Your task to perform on an android device: Empty the shopping cart on costco. Add sony triple a to the cart on costco, then select checkout. Image 0: 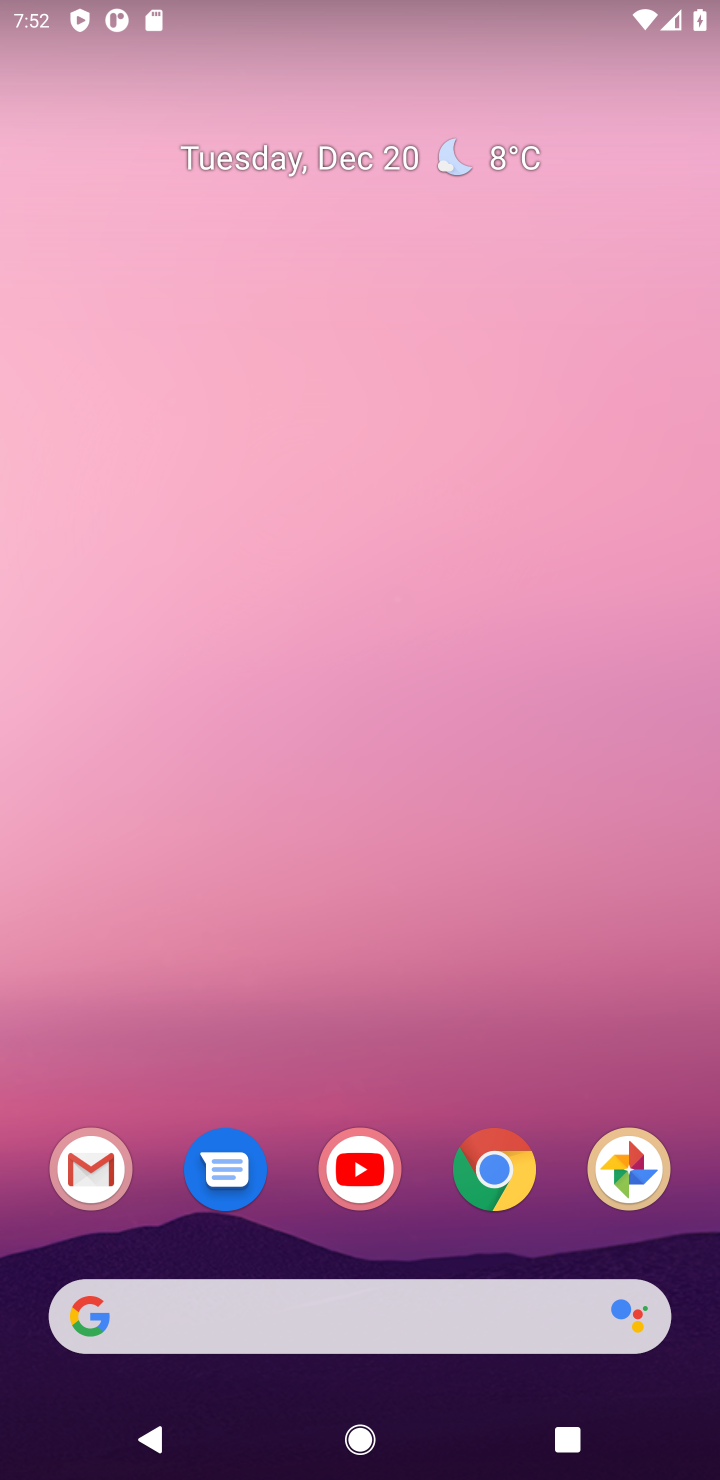
Step 0: click (480, 1175)
Your task to perform on an android device: Empty the shopping cart on costco. Add sony triple a to the cart on costco, then select checkout. Image 1: 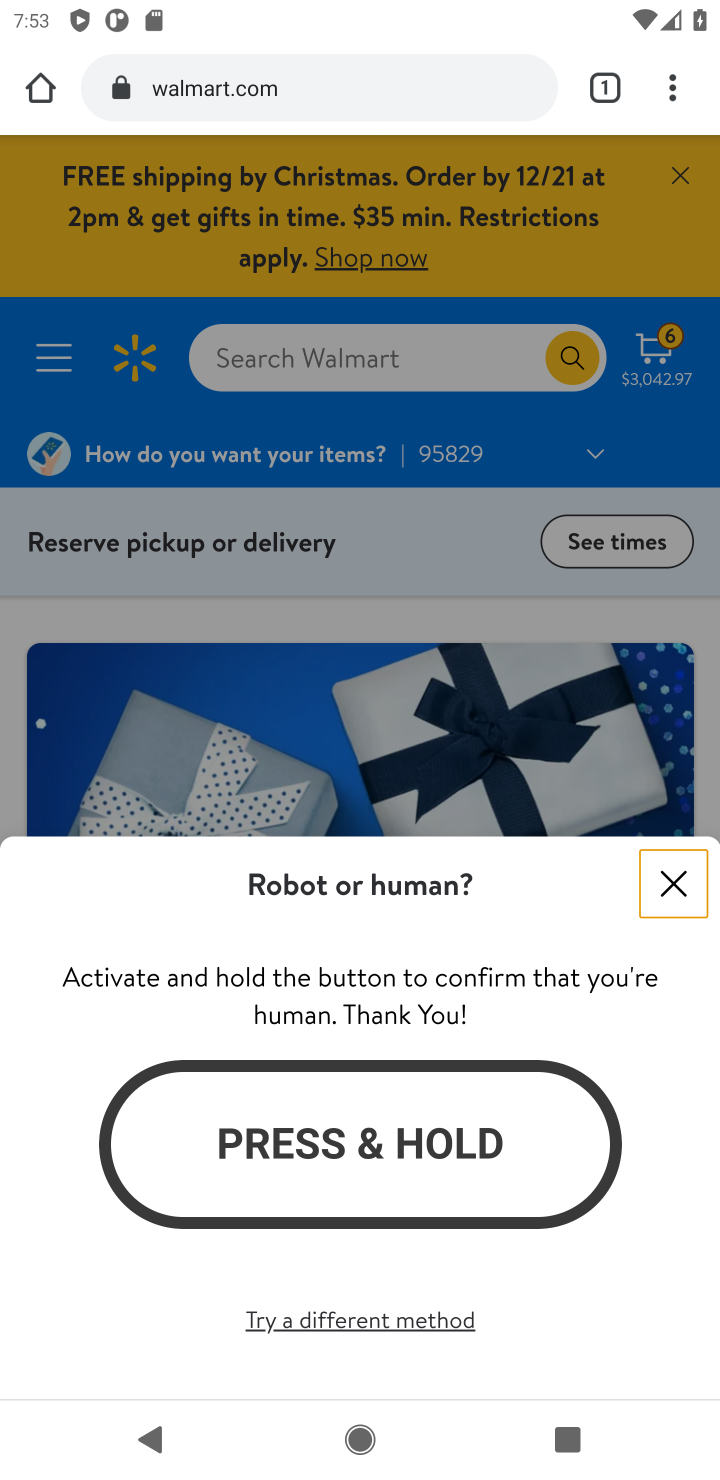
Step 1: press home button
Your task to perform on an android device: Empty the shopping cart on costco. Add sony triple a to the cart on costco, then select checkout. Image 2: 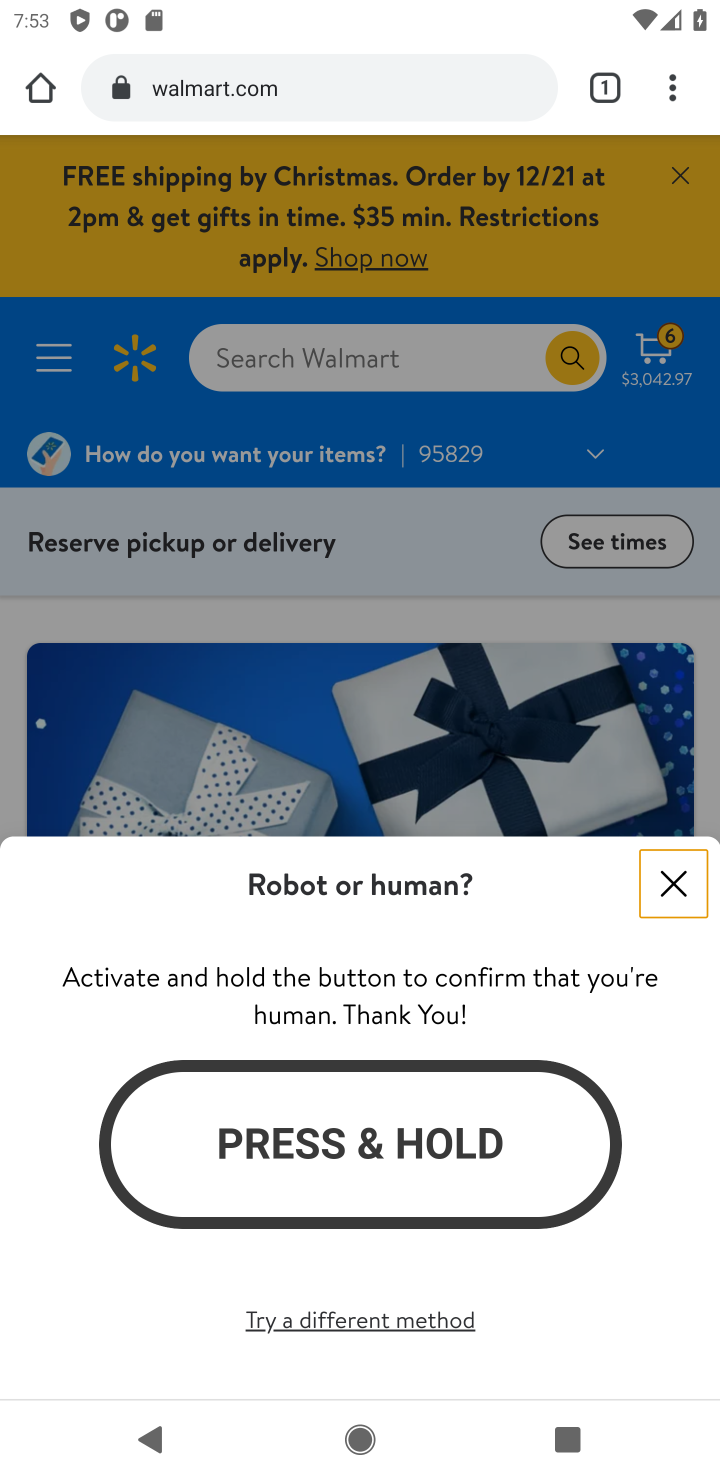
Step 2: press home button
Your task to perform on an android device: Empty the shopping cart on costco. Add sony triple a to the cart on costco, then select checkout. Image 3: 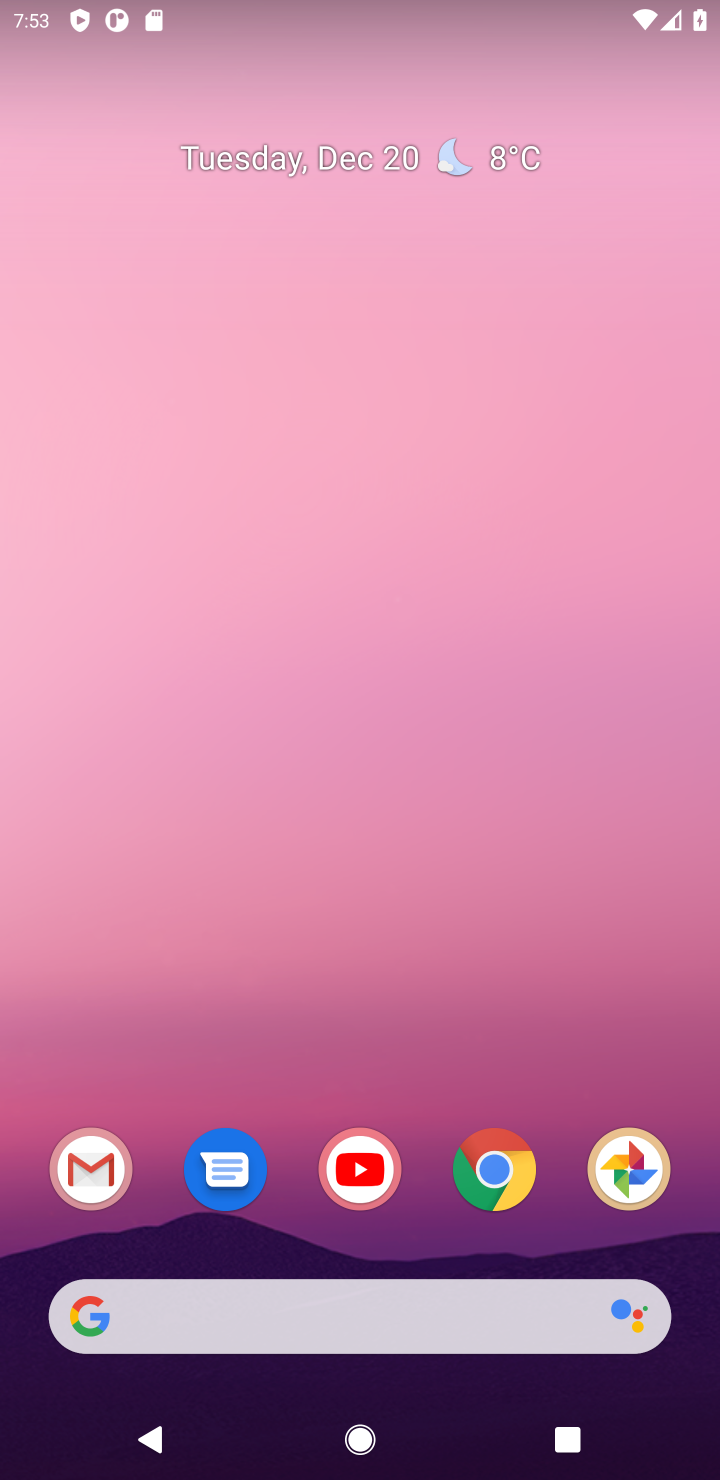
Step 3: click (473, 1141)
Your task to perform on an android device: Empty the shopping cart on costco. Add sony triple a to the cart on costco, then select checkout. Image 4: 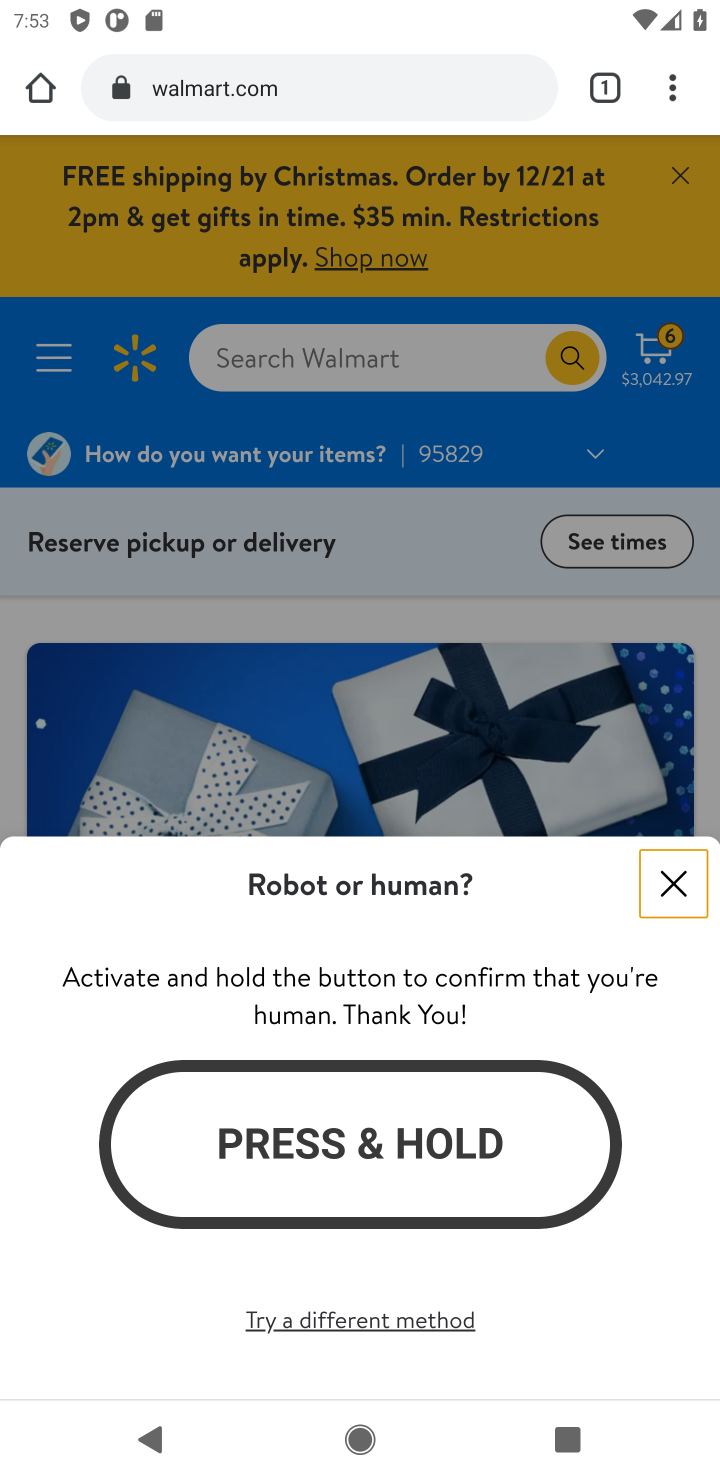
Step 4: click (421, 94)
Your task to perform on an android device: Empty the shopping cart on costco. Add sony triple a to the cart on costco, then select checkout. Image 5: 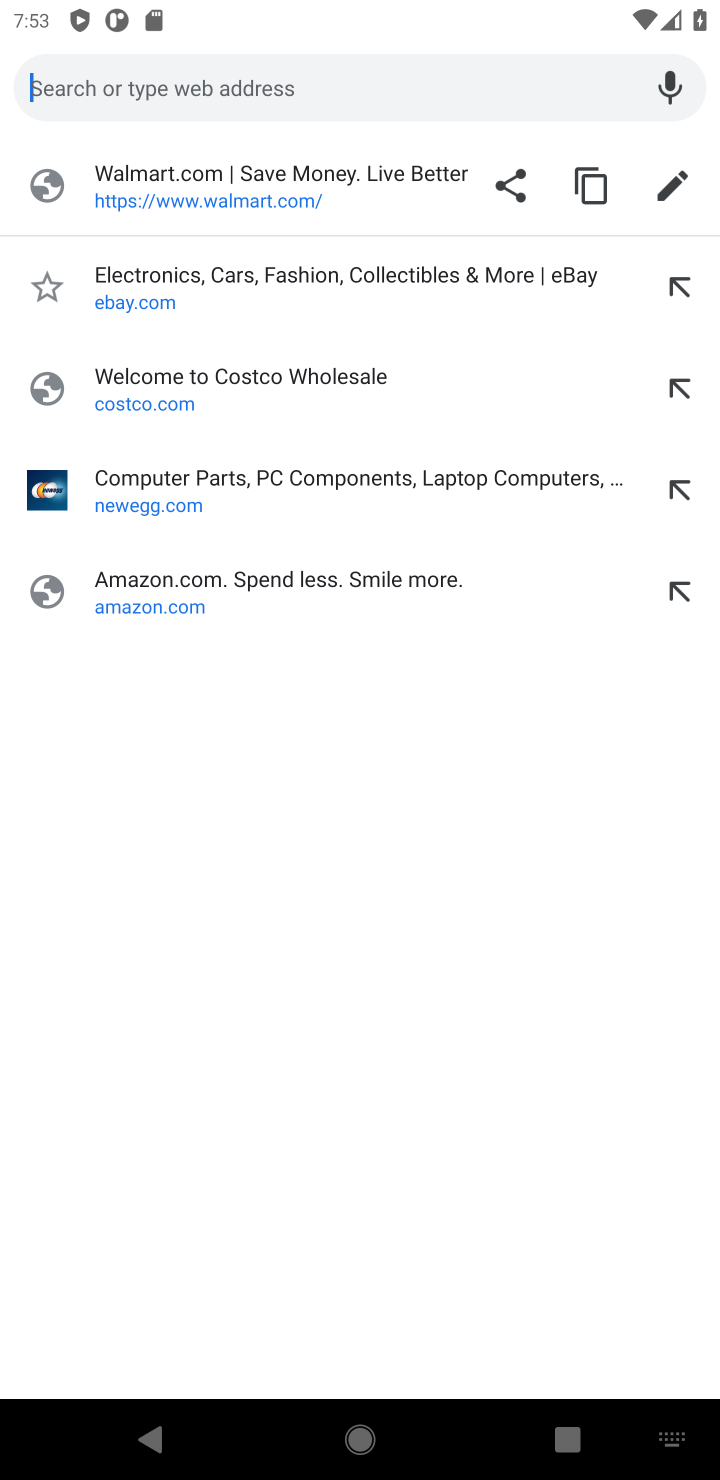
Step 5: type "costco"
Your task to perform on an android device: Empty the shopping cart on costco. Add sony triple a to the cart on costco, then select checkout. Image 6: 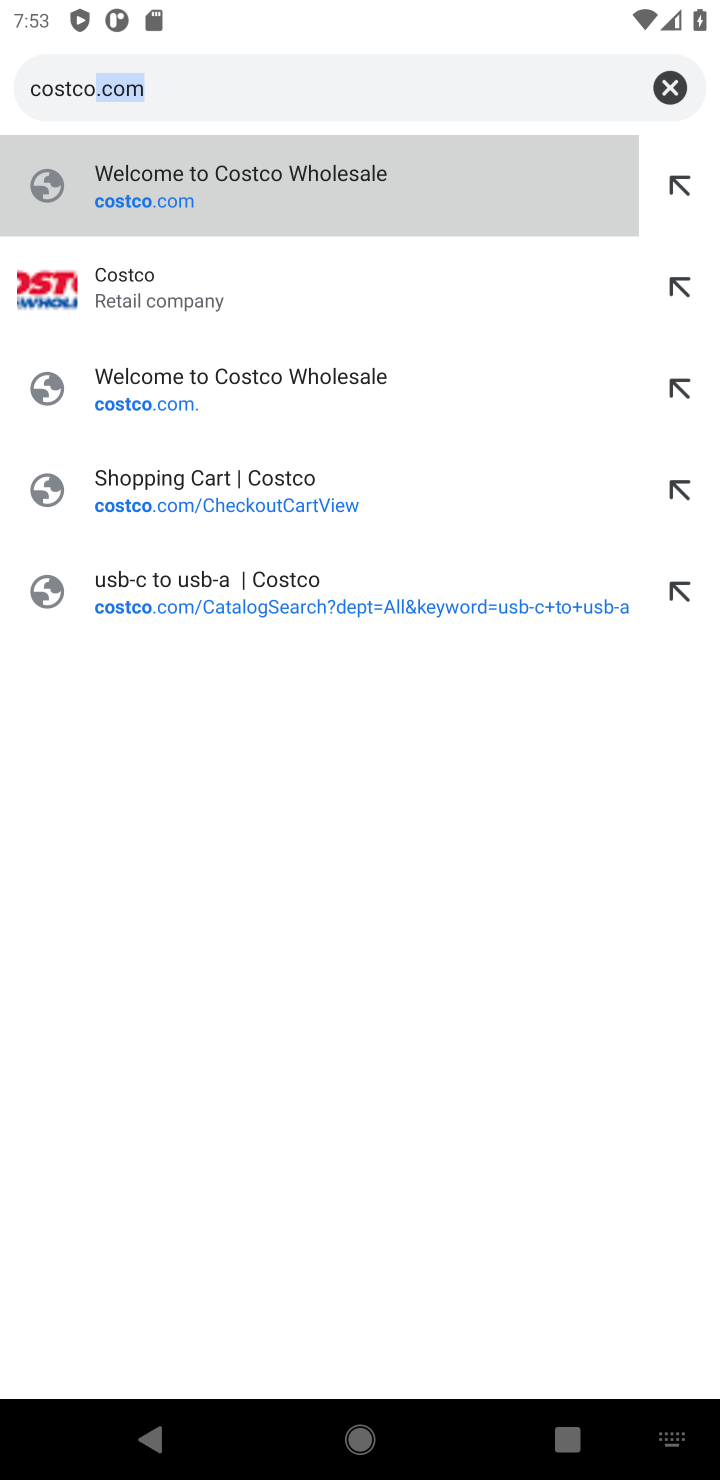
Step 6: click (351, 289)
Your task to perform on an android device: Empty the shopping cart on costco. Add sony triple a to the cart on costco, then select checkout. Image 7: 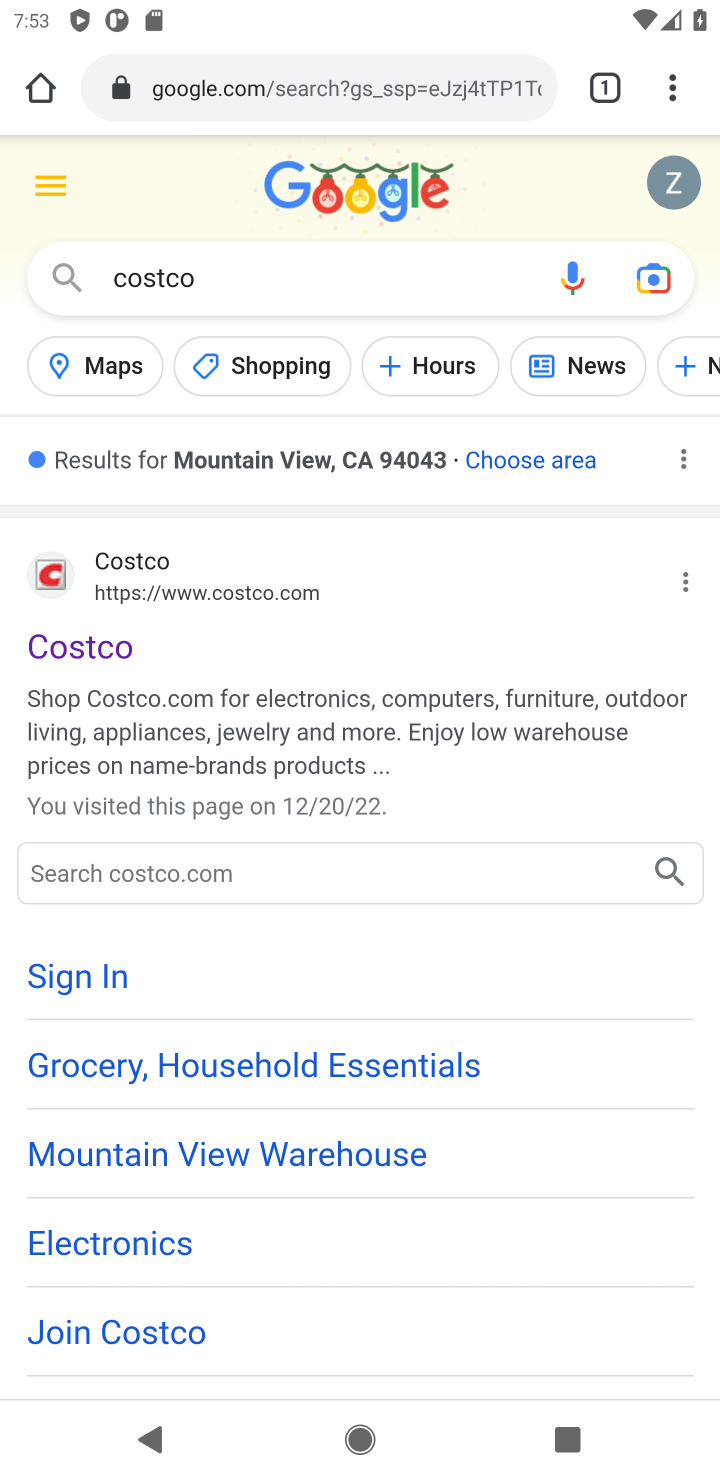
Step 7: click (104, 599)
Your task to perform on an android device: Empty the shopping cart on costco. Add sony triple a to the cart on costco, then select checkout. Image 8: 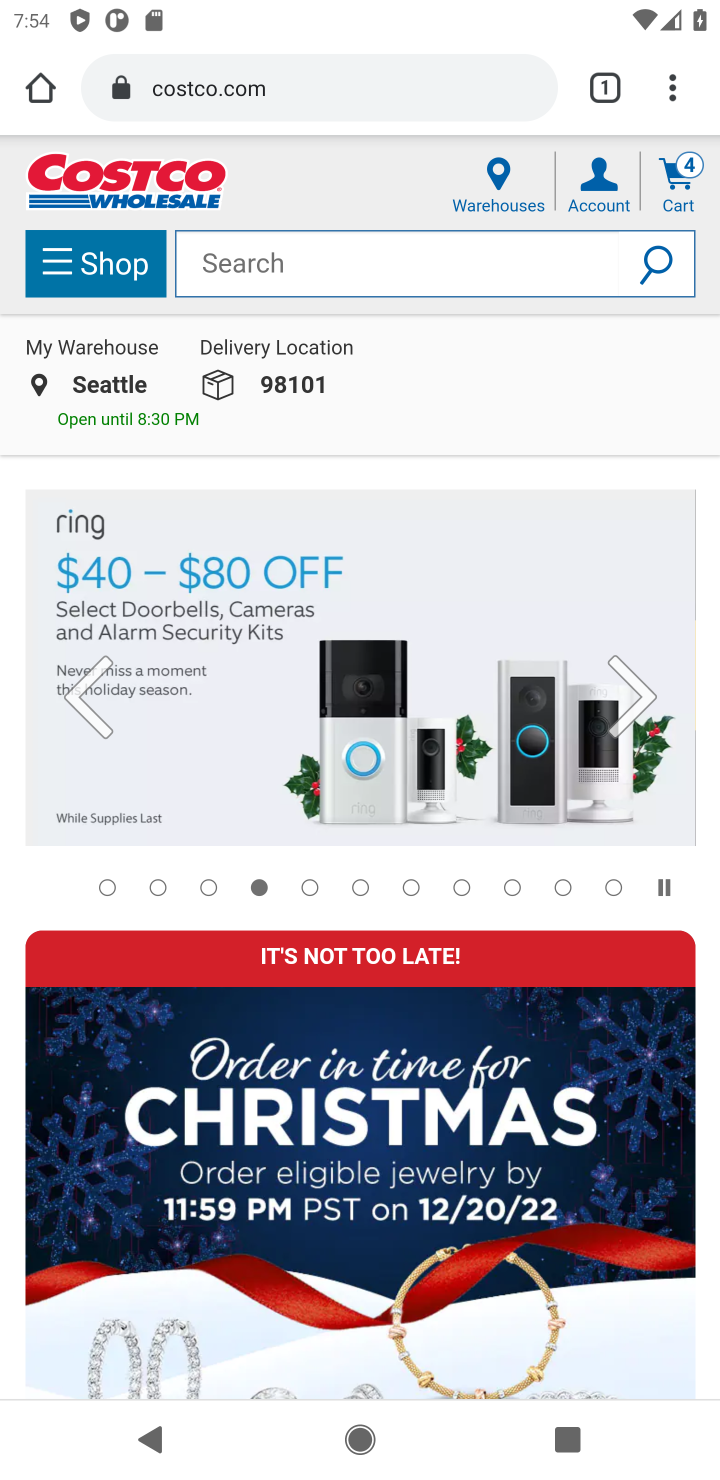
Step 8: task complete